Your task to perform on an android device: change your default location settings in chrome Image 0: 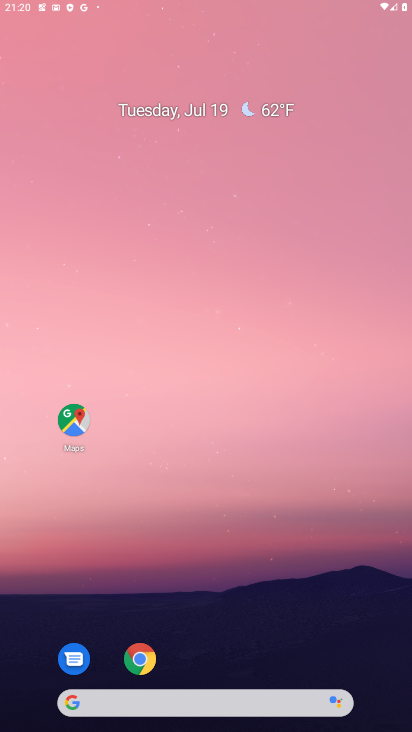
Step 0: press home button
Your task to perform on an android device: change your default location settings in chrome Image 1: 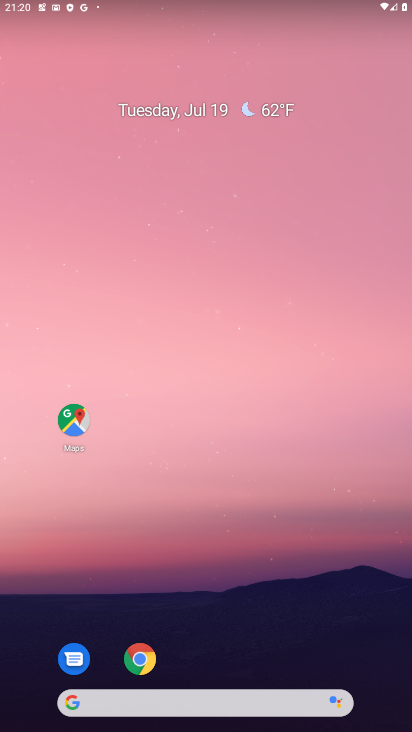
Step 1: drag from (276, 673) to (386, 11)
Your task to perform on an android device: change your default location settings in chrome Image 2: 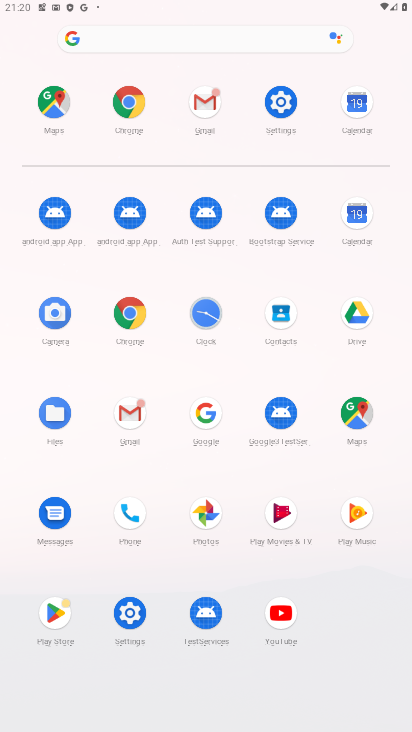
Step 2: click (144, 309)
Your task to perform on an android device: change your default location settings in chrome Image 3: 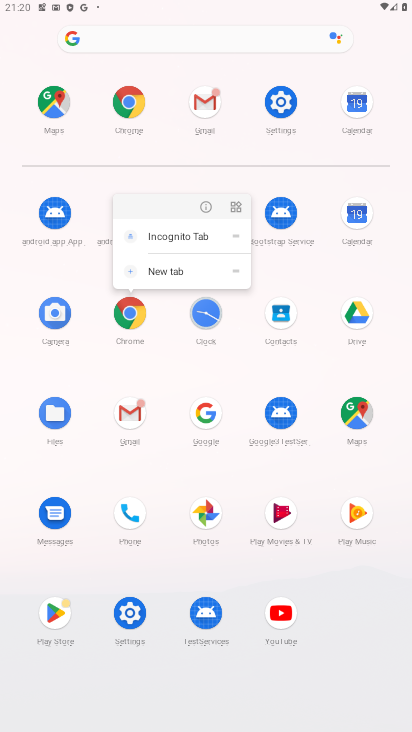
Step 3: click (214, 208)
Your task to perform on an android device: change your default location settings in chrome Image 4: 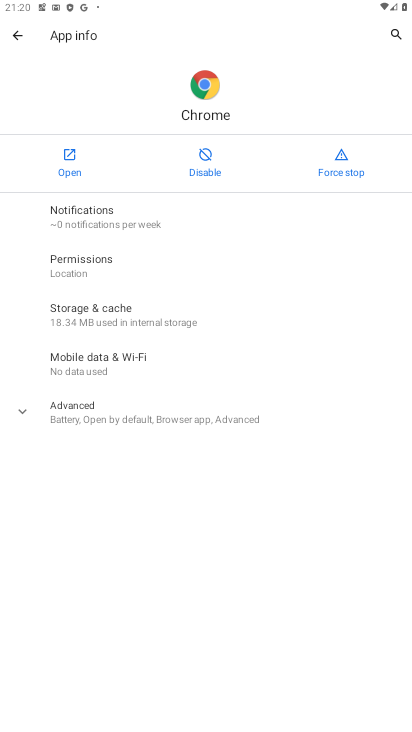
Step 4: click (116, 269)
Your task to perform on an android device: change your default location settings in chrome Image 5: 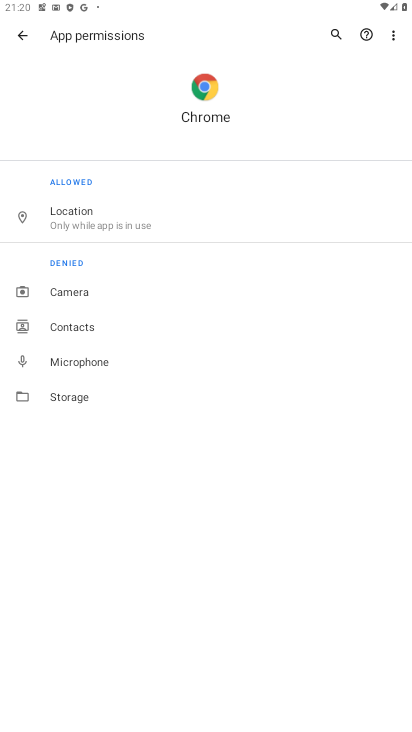
Step 5: click (86, 229)
Your task to perform on an android device: change your default location settings in chrome Image 6: 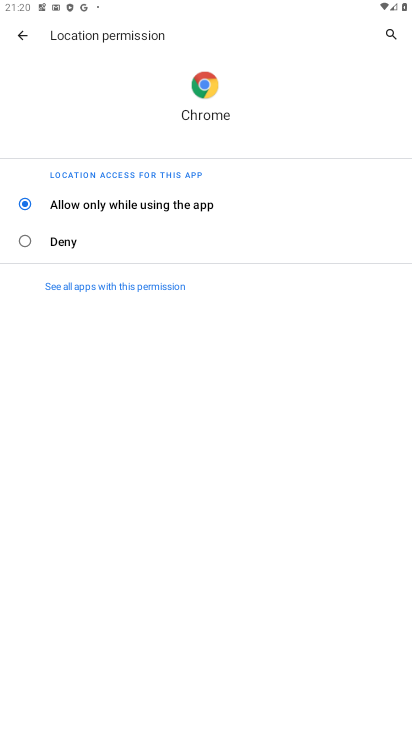
Step 6: click (72, 241)
Your task to perform on an android device: change your default location settings in chrome Image 7: 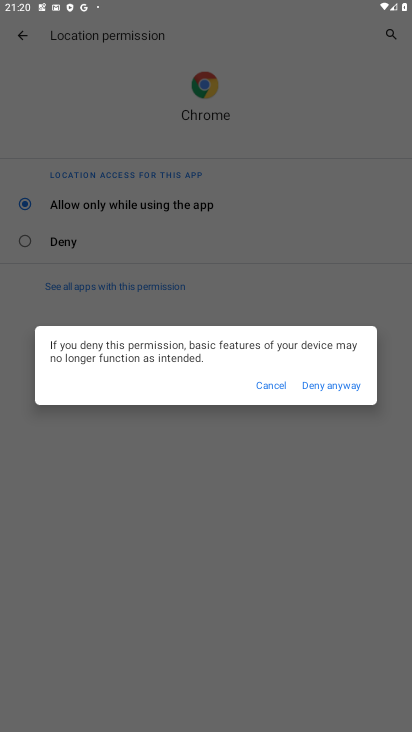
Step 7: click (324, 393)
Your task to perform on an android device: change your default location settings in chrome Image 8: 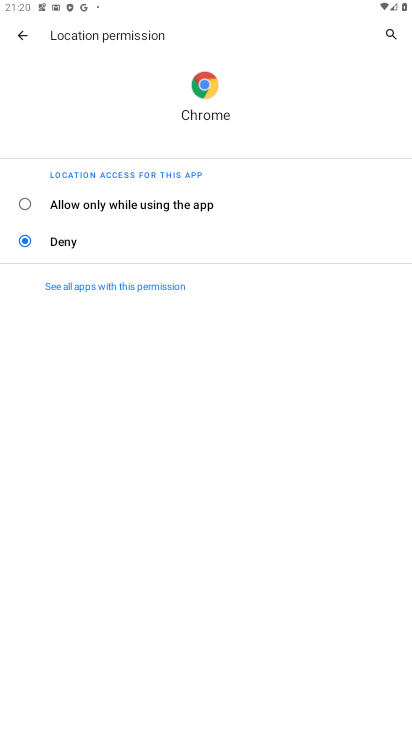
Step 8: task complete